Your task to perform on an android device: turn off location Image 0: 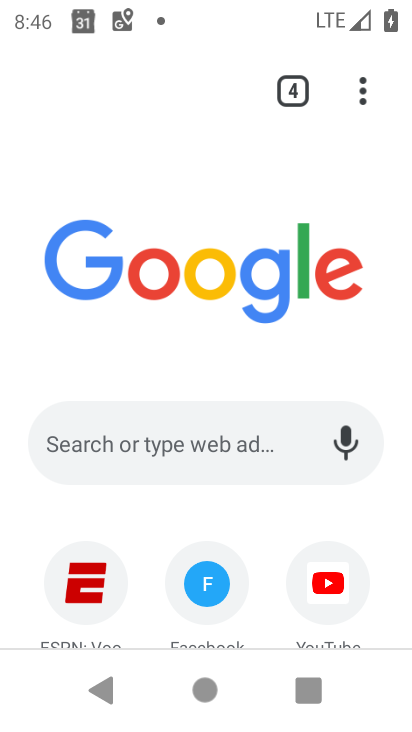
Step 0: press home button
Your task to perform on an android device: turn off location Image 1: 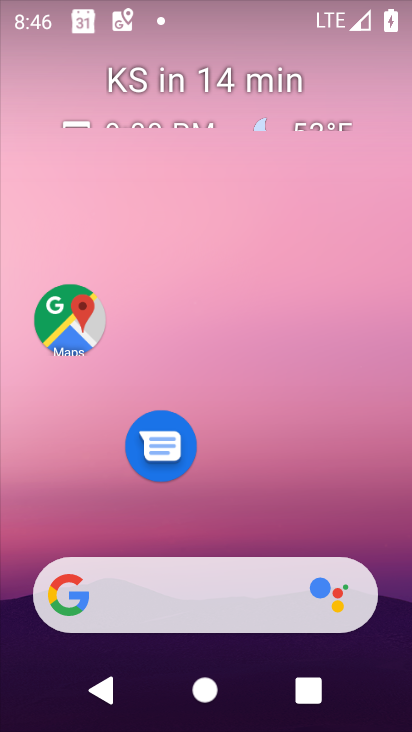
Step 1: drag from (193, 550) to (157, 6)
Your task to perform on an android device: turn off location Image 2: 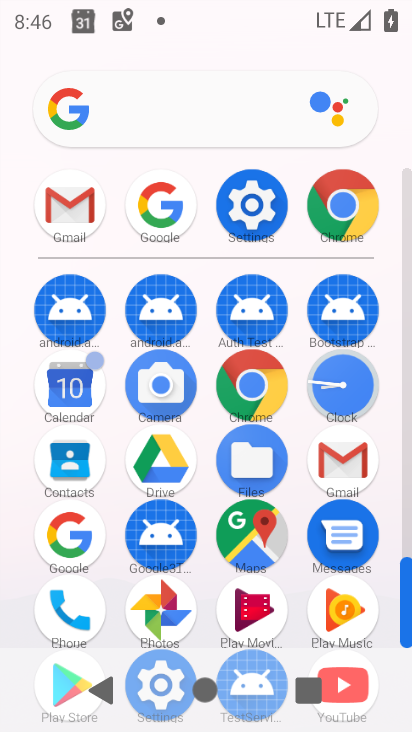
Step 2: click (243, 196)
Your task to perform on an android device: turn off location Image 3: 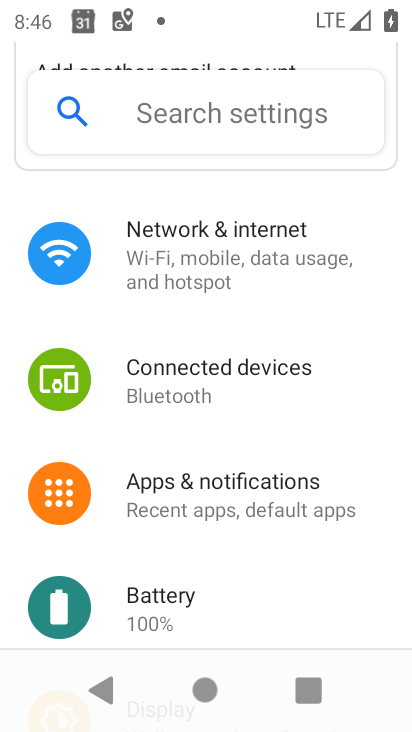
Step 3: drag from (265, 503) to (265, 63)
Your task to perform on an android device: turn off location Image 4: 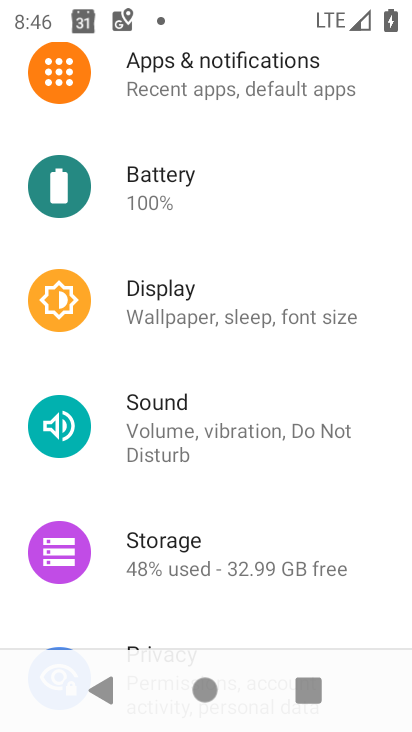
Step 4: drag from (218, 533) to (218, 173)
Your task to perform on an android device: turn off location Image 5: 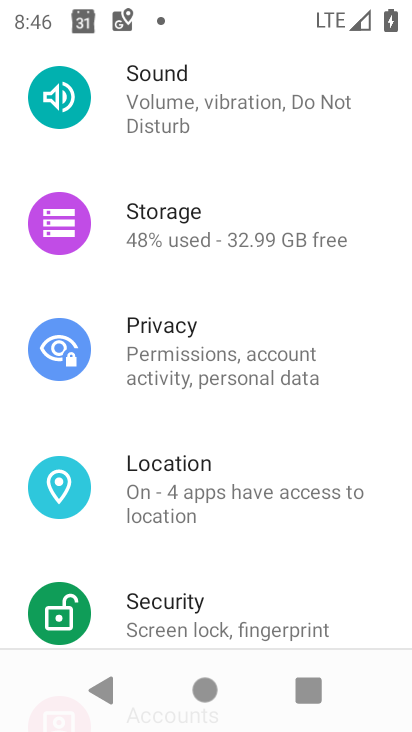
Step 5: click (140, 490)
Your task to perform on an android device: turn off location Image 6: 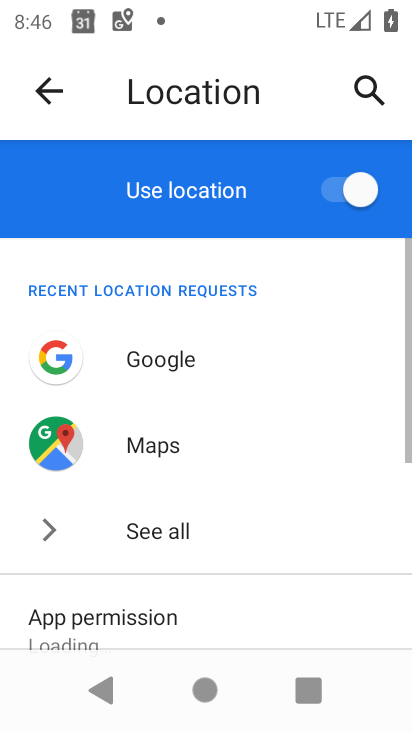
Step 6: click (344, 193)
Your task to perform on an android device: turn off location Image 7: 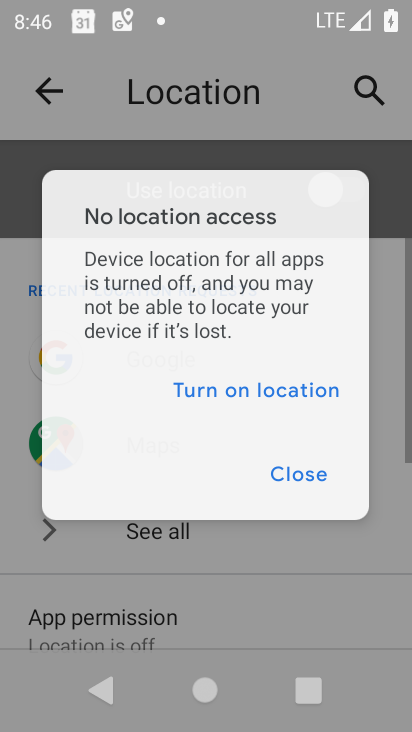
Step 7: task complete